Your task to perform on an android device: Add razer thresher to the cart on bestbuy Image 0: 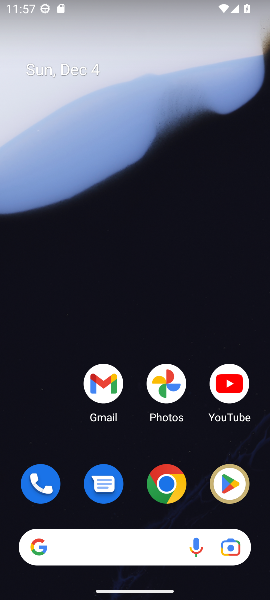
Step 0: click (168, 491)
Your task to perform on an android device: Add razer thresher to the cart on bestbuy Image 1: 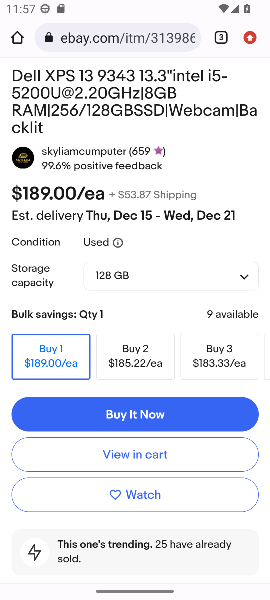
Step 1: click (106, 43)
Your task to perform on an android device: Add razer thresher to the cart on bestbuy Image 2: 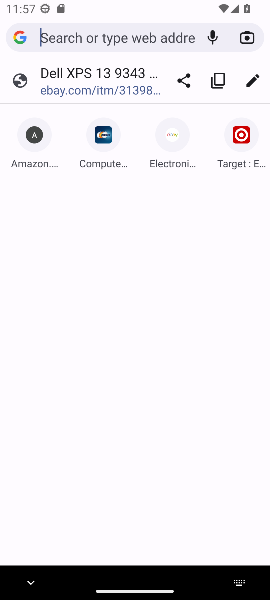
Step 2: type "bestbuy.com"
Your task to perform on an android device: Add razer thresher to the cart on bestbuy Image 3: 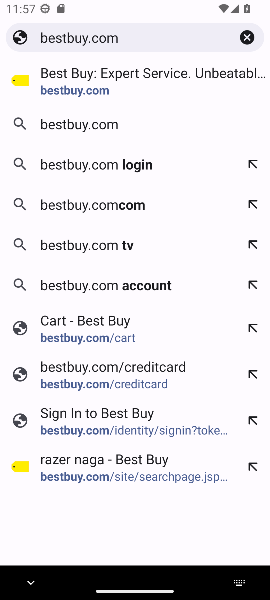
Step 3: click (50, 94)
Your task to perform on an android device: Add razer thresher to the cart on bestbuy Image 4: 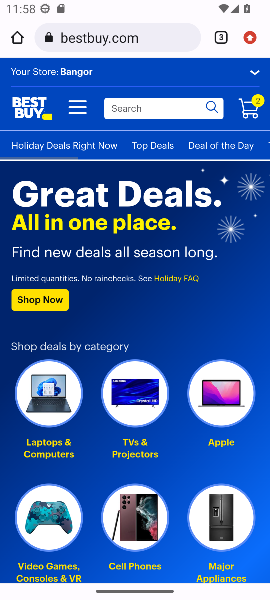
Step 4: click (122, 111)
Your task to perform on an android device: Add razer thresher to the cart on bestbuy Image 5: 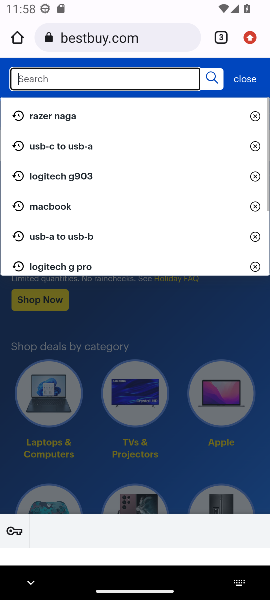
Step 5: click (64, 85)
Your task to perform on an android device: Add razer thresher to the cart on bestbuy Image 6: 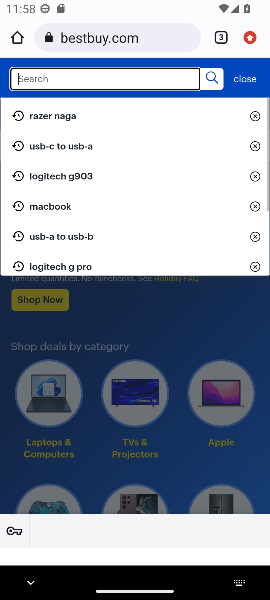
Step 6: type " razer thresher"
Your task to perform on an android device: Add razer thresher to the cart on bestbuy Image 7: 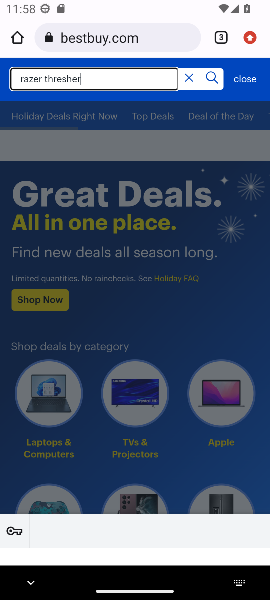
Step 7: click (208, 73)
Your task to perform on an android device: Add razer thresher to the cart on bestbuy Image 8: 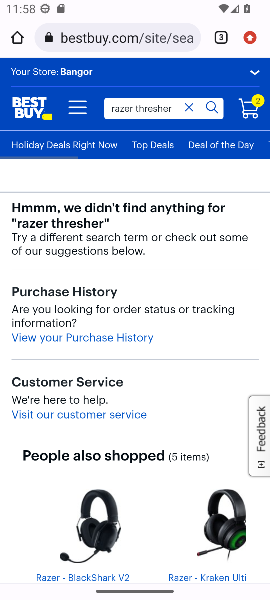
Step 8: task complete